Your task to perform on an android device: Do I have any events this weekend? Image 0: 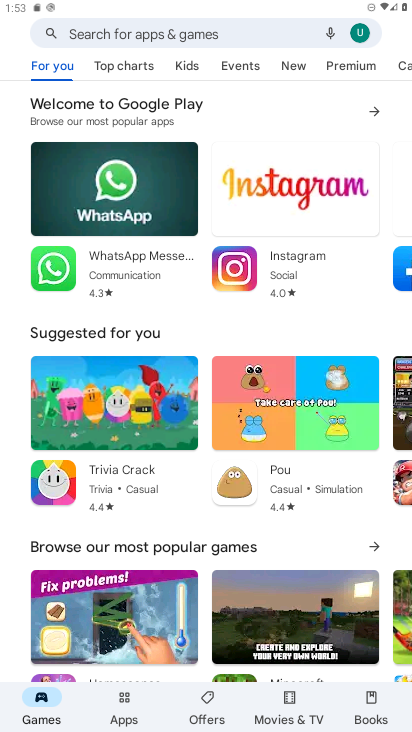
Step 0: task complete